Your task to perform on an android device: Show me popular games on the Play Store Image 0: 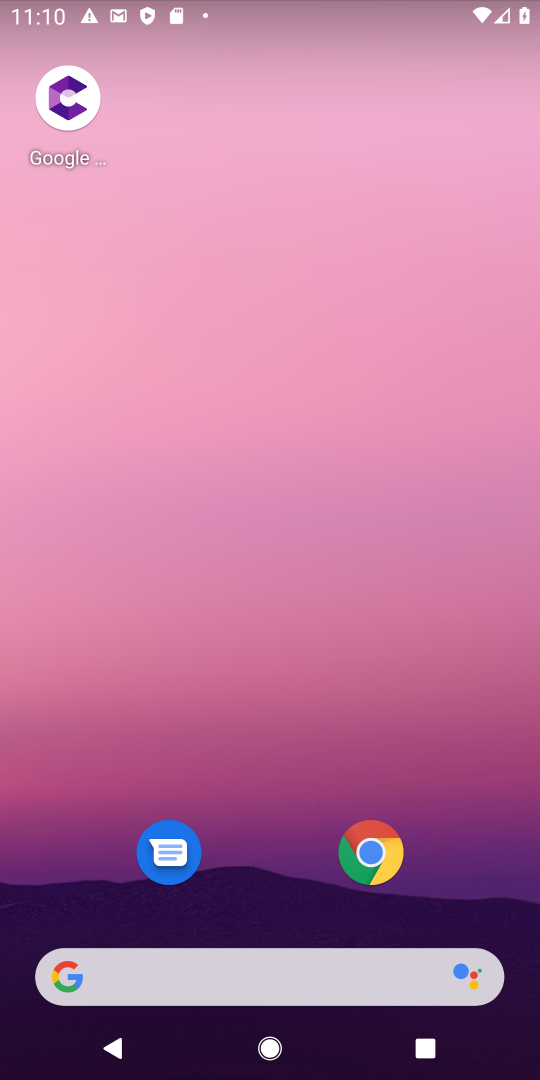
Step 0: drag from (246, 657) to (288, 238)
Your task to perform on an android device: Show me popular games on the Play Store Image 1: 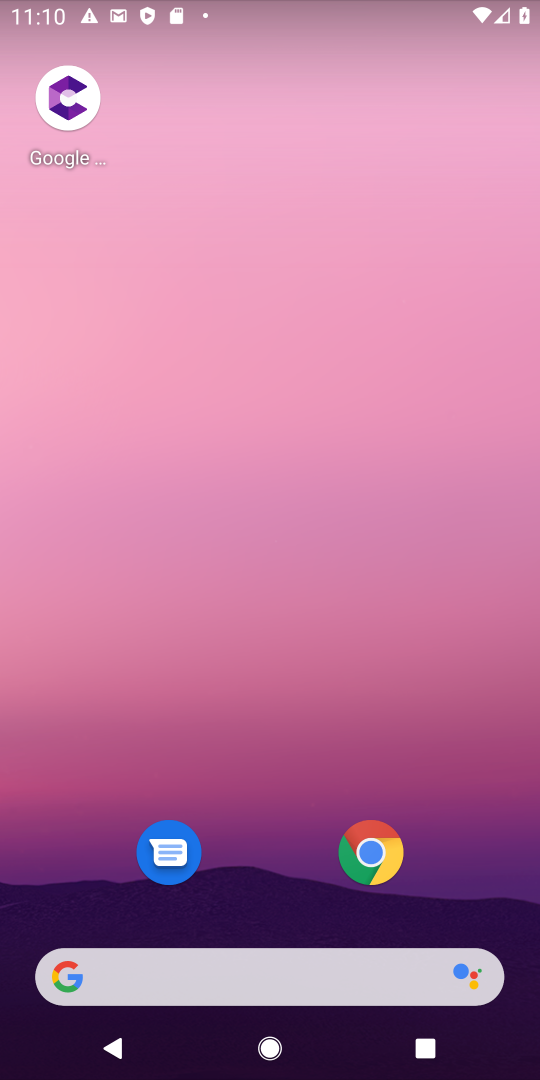
Step 1: drag from (289, 769) to (273, 150)
Your task to perform on an android device: Show me popular games on the Play Store Image 2: 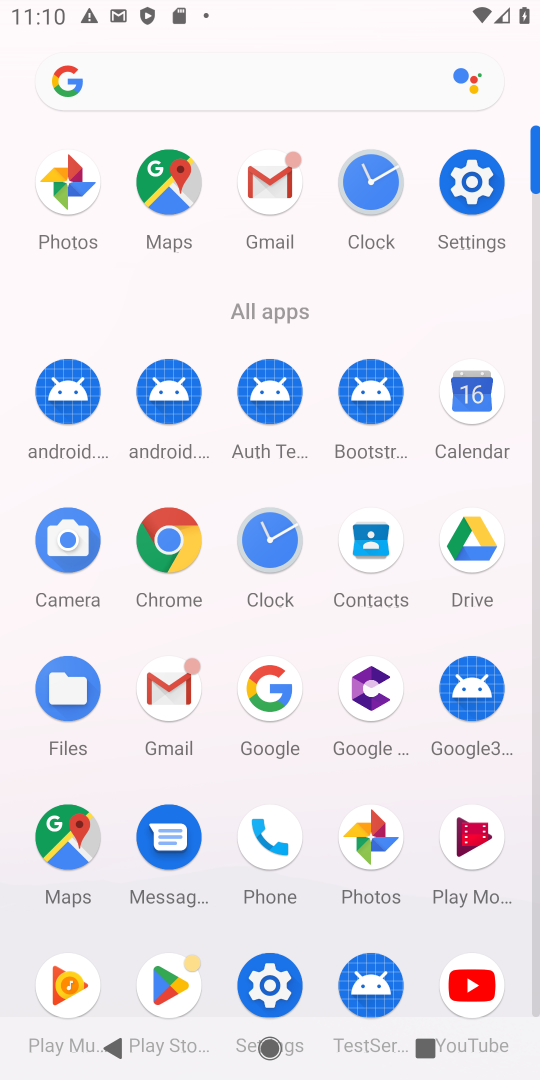
Step 2: click (160, 978)
Your task to perform on an android device: Show me popular games on the Play Store Image 3: 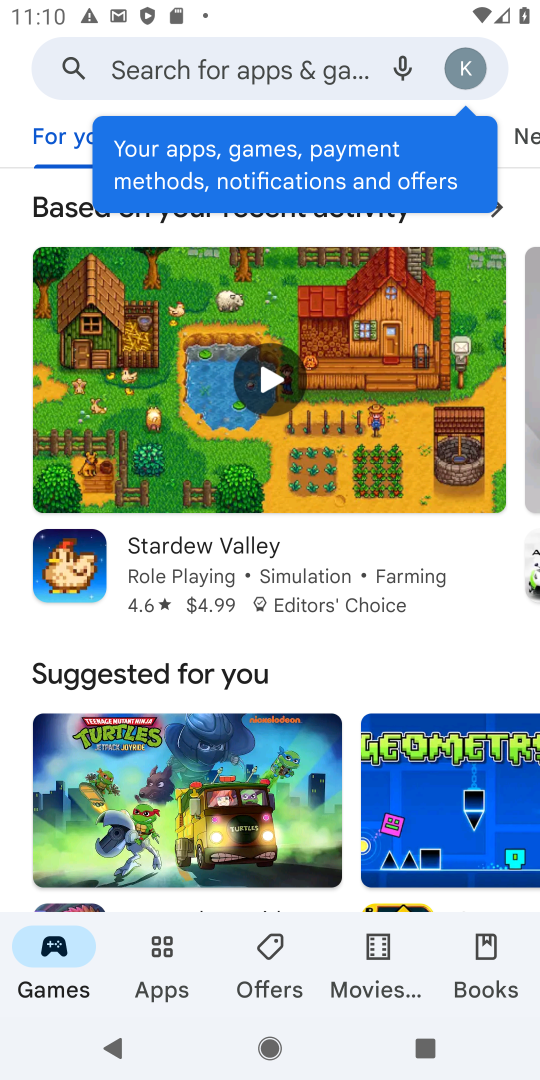
Step 3: task complete